Your task to perform on an android device: Show me the alarms in the clock app Image 0: 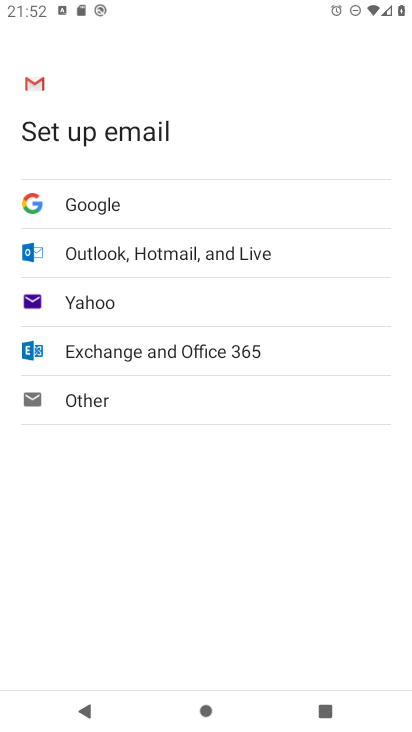
Step 0: press home button
Your task to perform on an android device: Show me the alarms in the clock app Image 1: 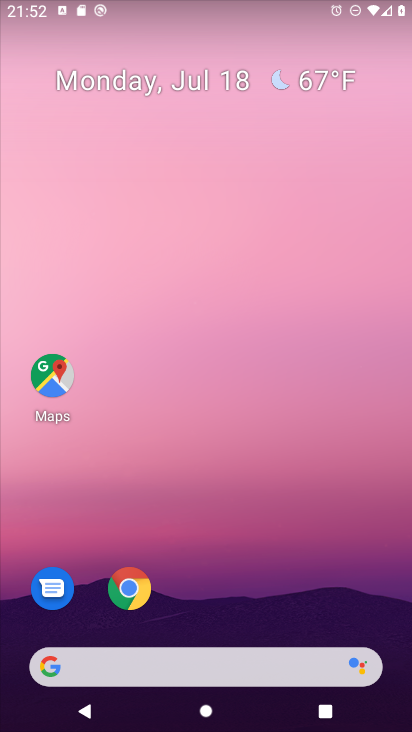
Step 1: drag from (378, 620) to (318, 211)
Your task to perform on an android device: Show me the alarms in the clock app Image 2: 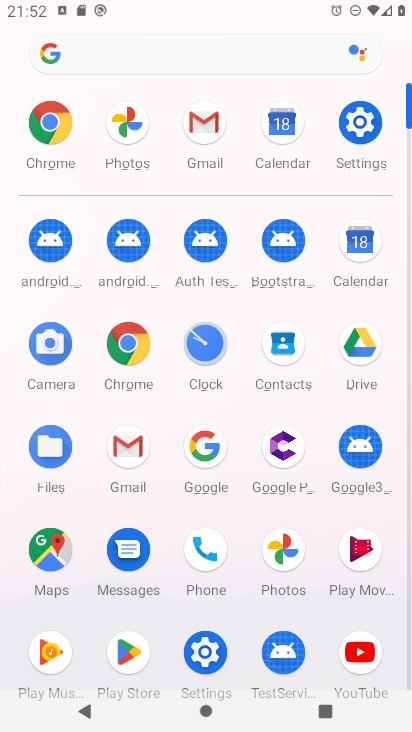
Step 2: click (203, 344)
Your task to perform on an android device: Show me the alarms in the clock app Image 3: 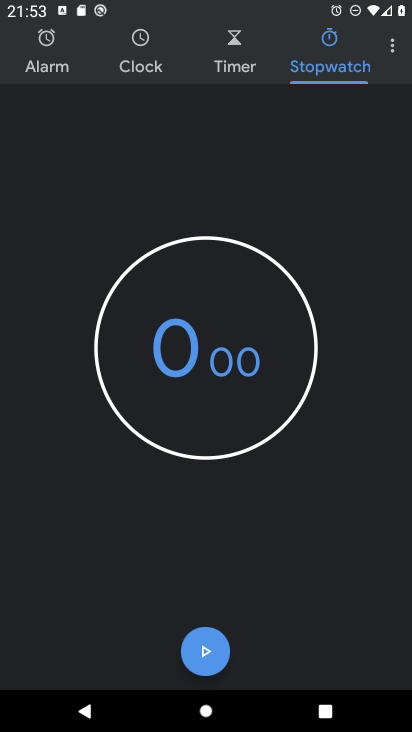
Step 3: click (52, 54)
Your task to perform on an android device: Show me the alarms in the clock app Image 4: 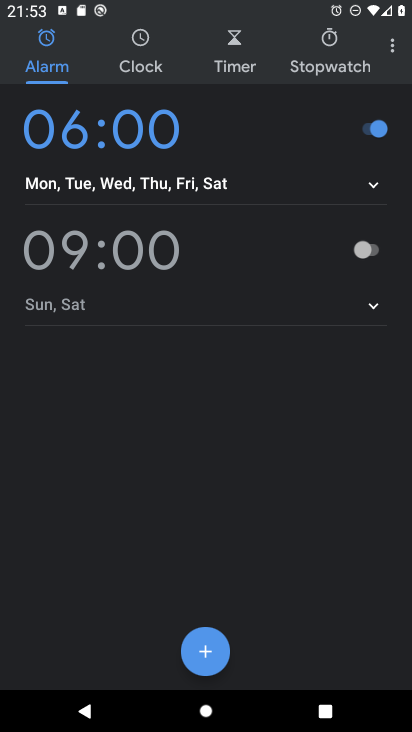
Step 4: task complete